Your task to perform on an android device: turn on translation in the chrome app Image 0: 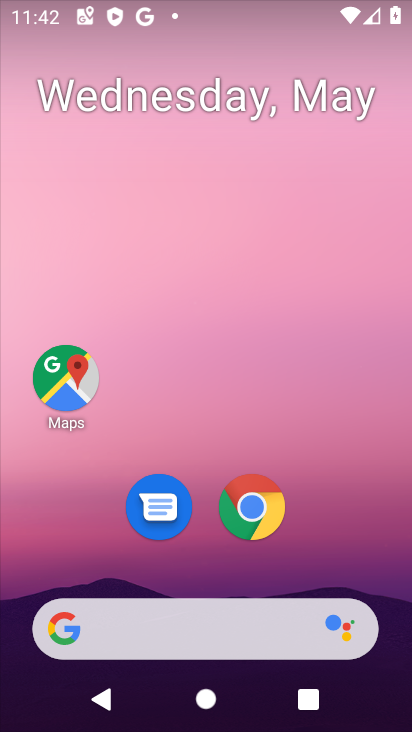
Step 0: press home button
Your task to perform on an android device: turn on translation in the chrome app Image 1: 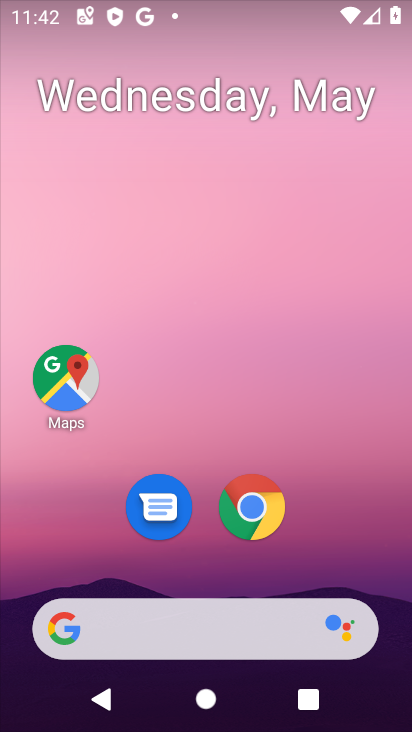
Step 1: click (235, 517)
Your task to perform on an android device: turn on translation in the chrome app Image 2: 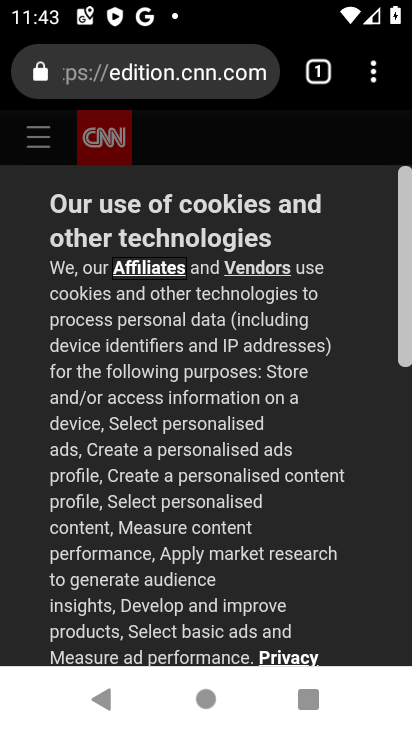
Step 2: click (378, 126)
Your task to perform on an android device: turn on translation in the chrome app Image 3: 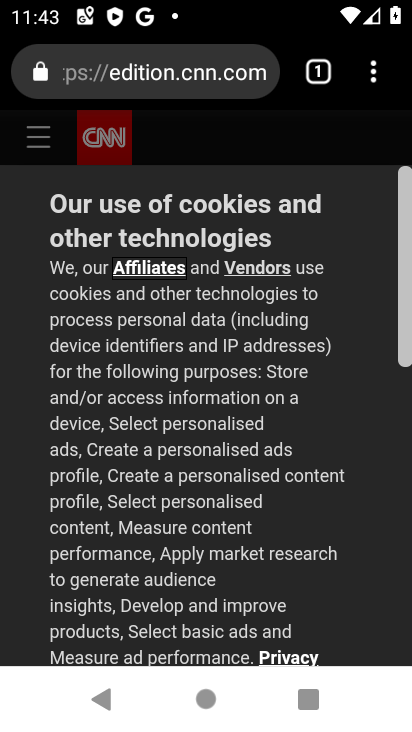
Step 3: drag from (374, 59) to (208, 517)
Your task to perform on an android device: turn on translation in the chrome app Image 4: 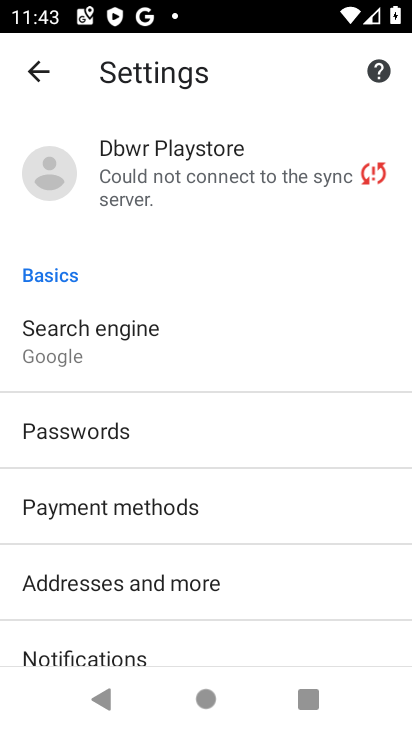
Step 4: drag from (213, 541) to (356, 54)
Your task to perform on an android device: turn on translation in the chrome app Image 5: 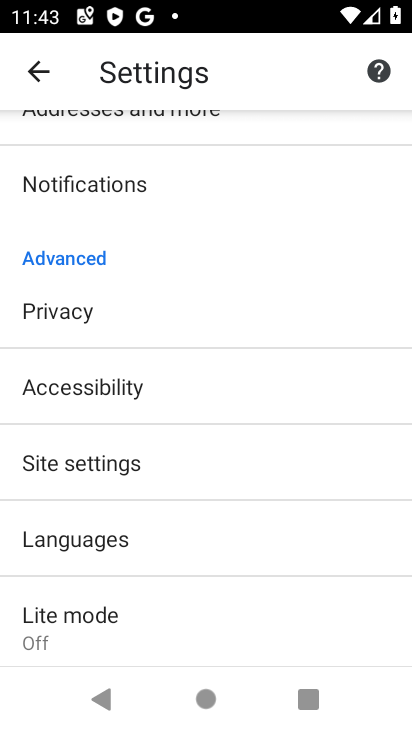
Step 5: click (142, 515)
Your task to perform on an android device: turn on translation in the chrome app Image 6: 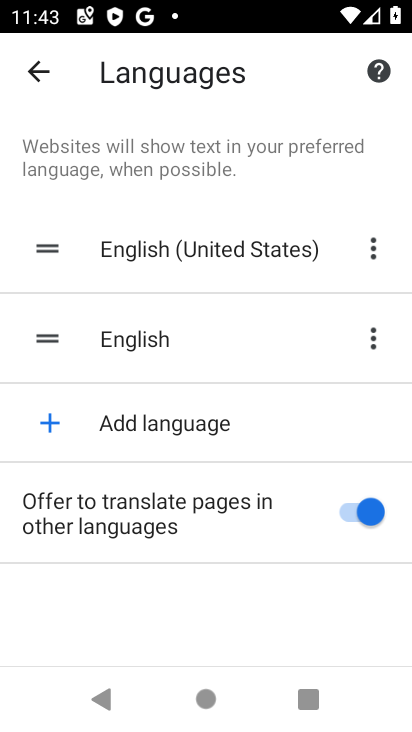
Step 6: task complete